Your task to perform on an android device: Go to Amazon Image 0: 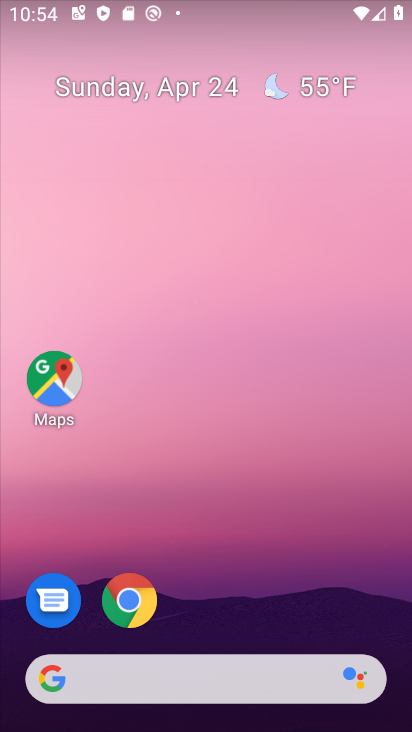
Step 0: click (136, 597)
Your task to perform on an android device: Go to Amazon Image 1: 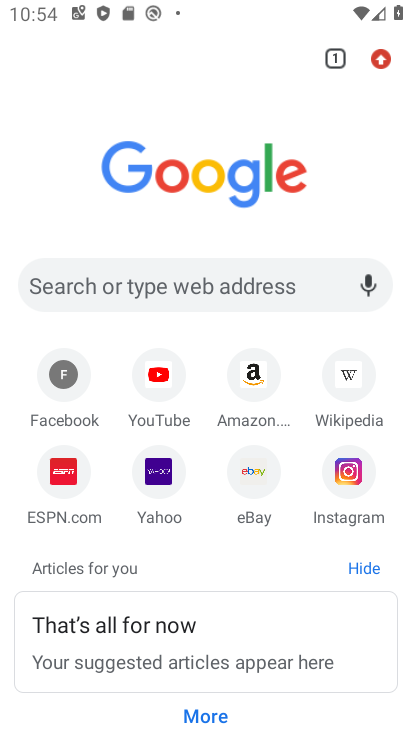
Step 1: click (255, 370)
Your task to perform on an android device: Go to Amazon Image 2: 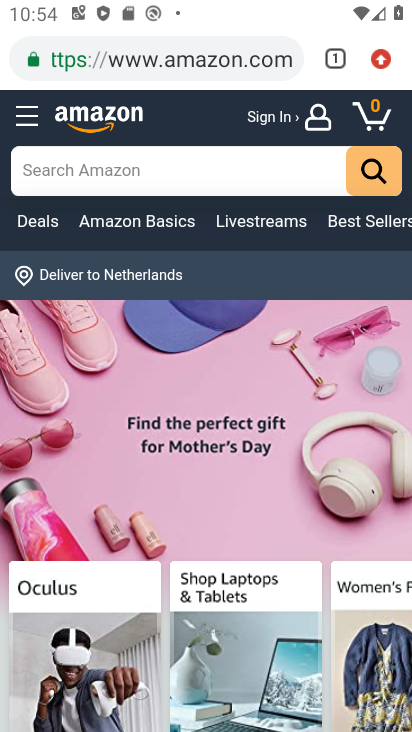
Step 2: task complete